Your task to perform on an android device: See recent photos Image 0: 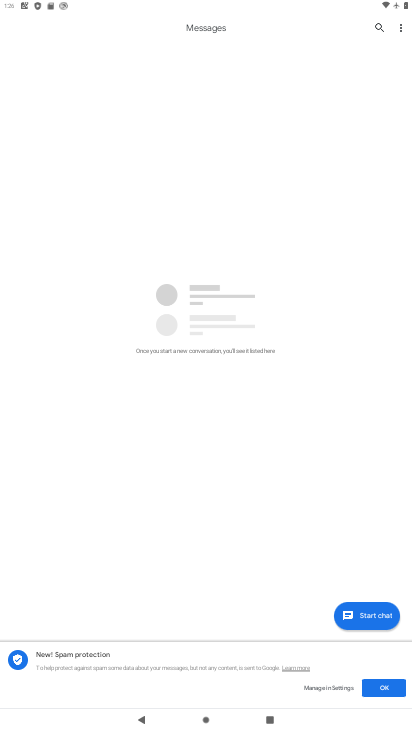
Step 0: press home button
Your task to perform on an android device: See recent photos Image 1: 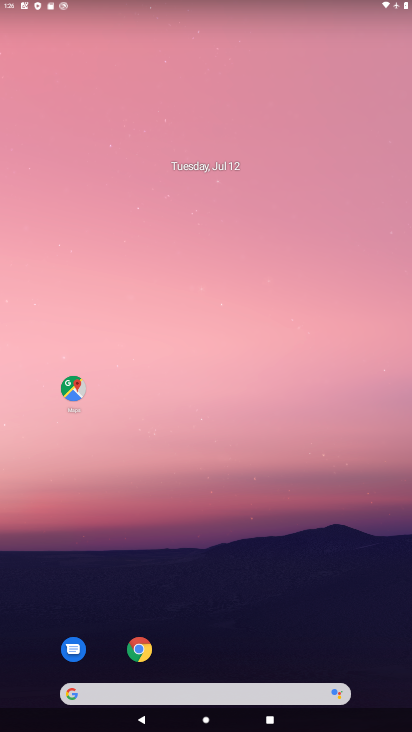
Step 1: drag from (267, 650) to (206, 180)
Your task to perform on an android device: See recent photos Image 2: 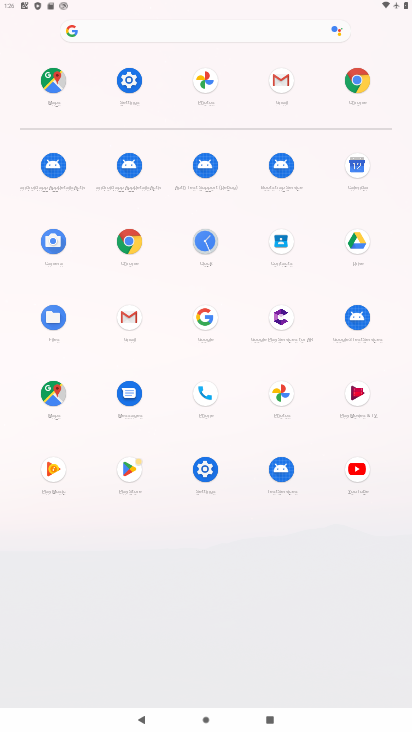
Step 2: click (277, 393)
Your task to perform on an android device: See recent photos Image 3: 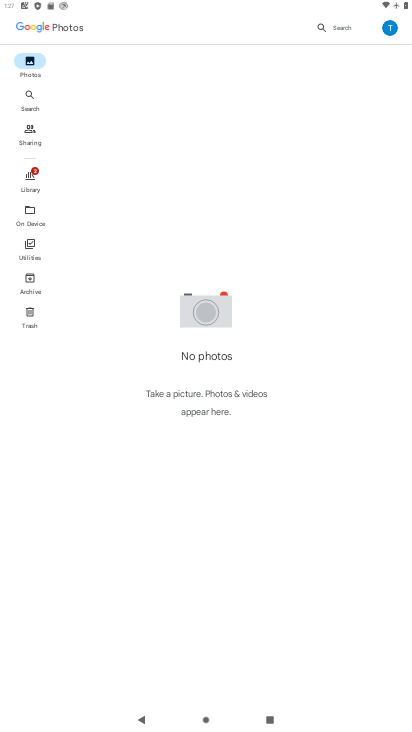
Step 3: task complete